Your task to perform on an android device: Open the phone app and click the voicemail tab. Image 0: 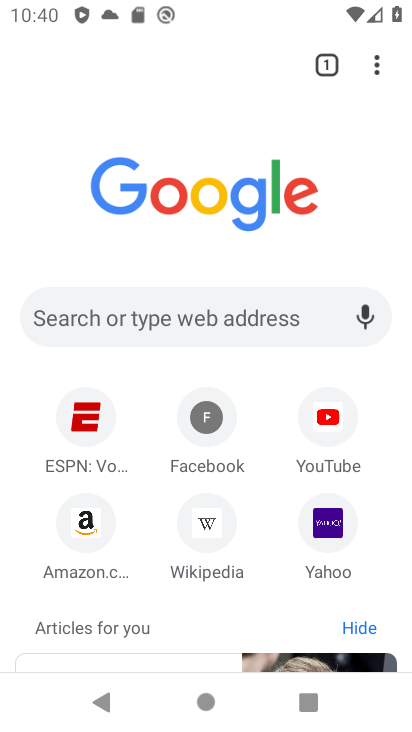
Step 0: press home button
Your task to perform on an android device: Open the phone app and click the voicemail tab. Image 1: 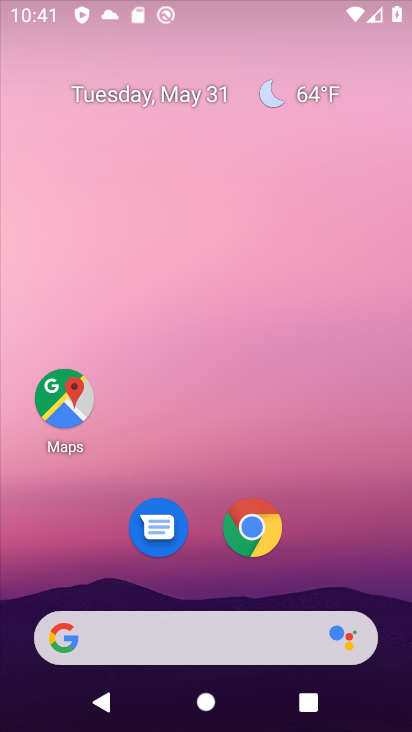
Step 1: drag from (159, 682) to (245, 3)
Your task to perform on an android device: Open the phone app and click the voicemail tab. Image 2: 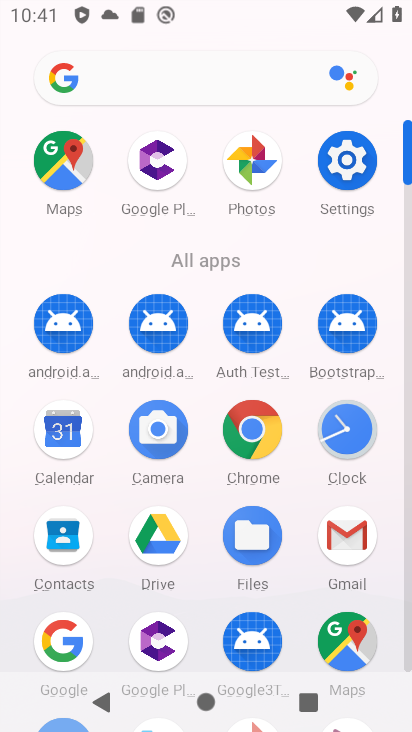
Step 2: drag from (256, 640) to (281, 13)
Your task to perform on an android device: Open the phone app and click the voicemail tab. Image 3: 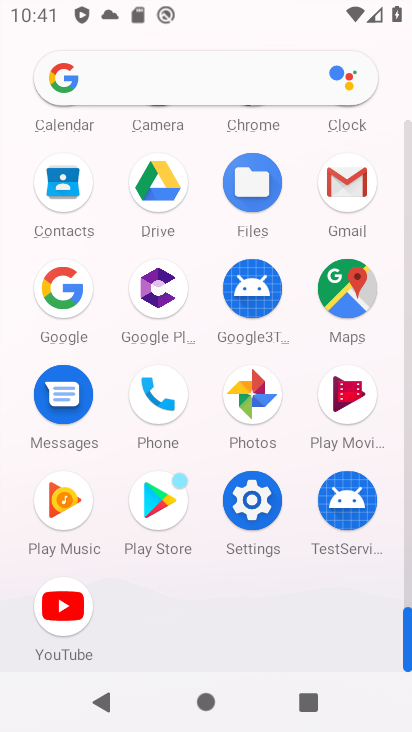
Step 3: click (162, 403)
Your task to perform on an android device: Open the phone app and click the voicemail tab. Image 4: 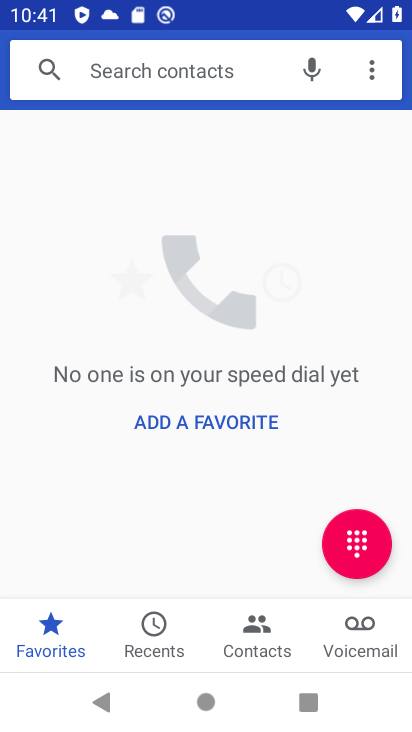
Step 4: click (369, 645)
Your task to perform on an android device: Open the phone app and click the voicemail tab. Image 5: 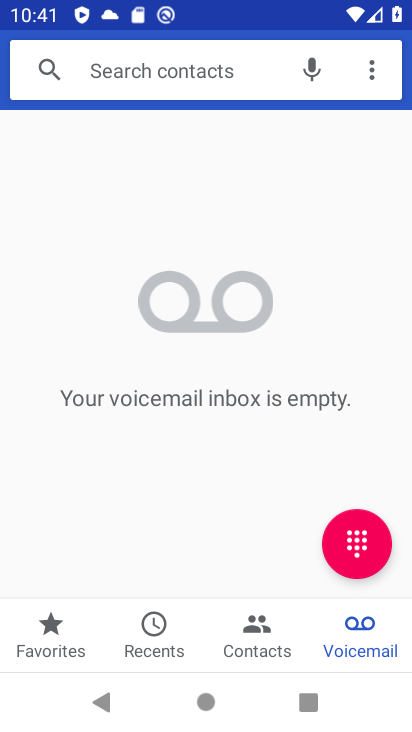
Step 5: task complete